Your task to perform on an android device: open app "Indeed Job Search" (install if not already installed) and go to login screen Image 0: 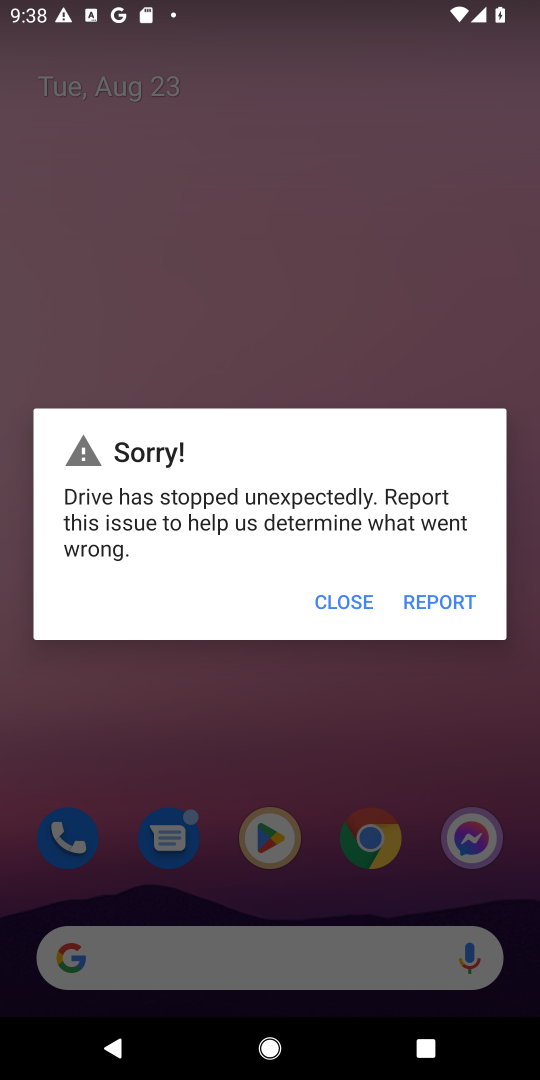
Step 0: click (350, 614)
Your task to perform on an android device: open app "Indeed Job Search" (install if not already installed) and go to login screen Image 1: 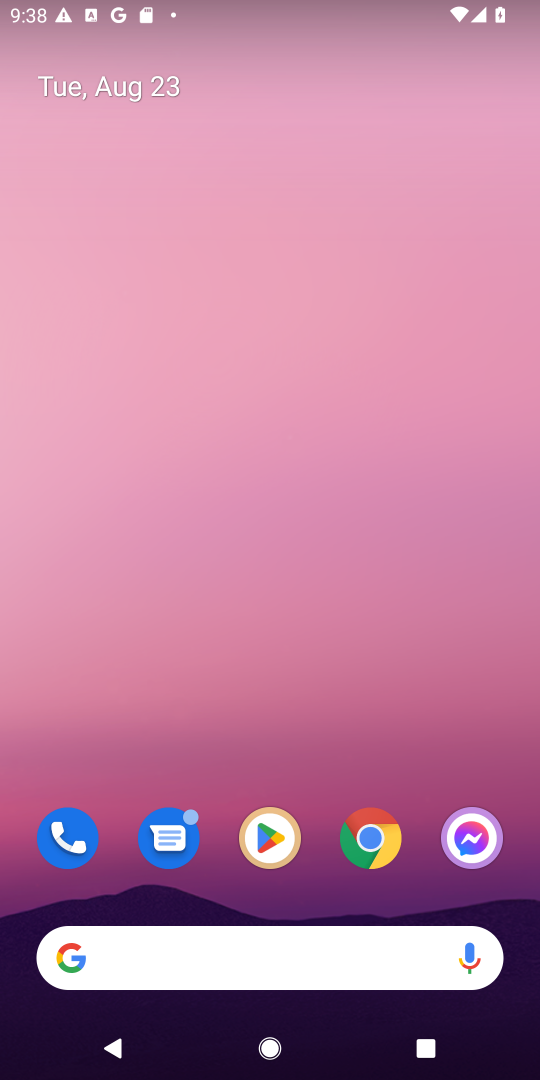
Step 1: click (289, 827)
Your task to perform on an android device: open app "Indeed Job Search" (install if not already installed) and go to login screen Image 2: 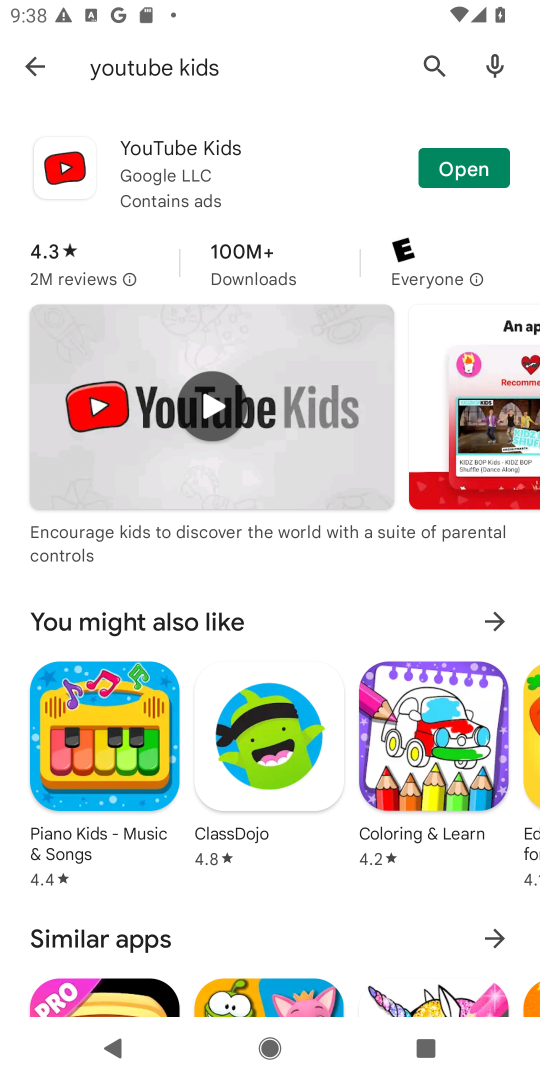
Step 2: click (436, 56)
Your task to perform on an android device: open app "Indeed Job Search" (install if not already installed) and go to login screen Image 3: 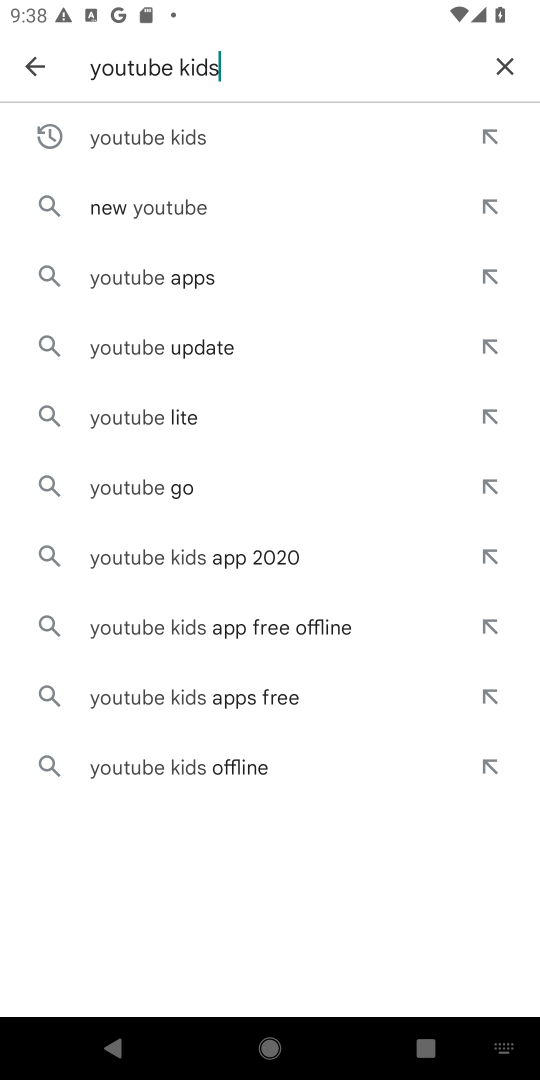
Step 3: click (498, 63)
Your task to perform on an android device: open app "Indeed Job Search" (install if not already installed) and go to login screen Image 4: 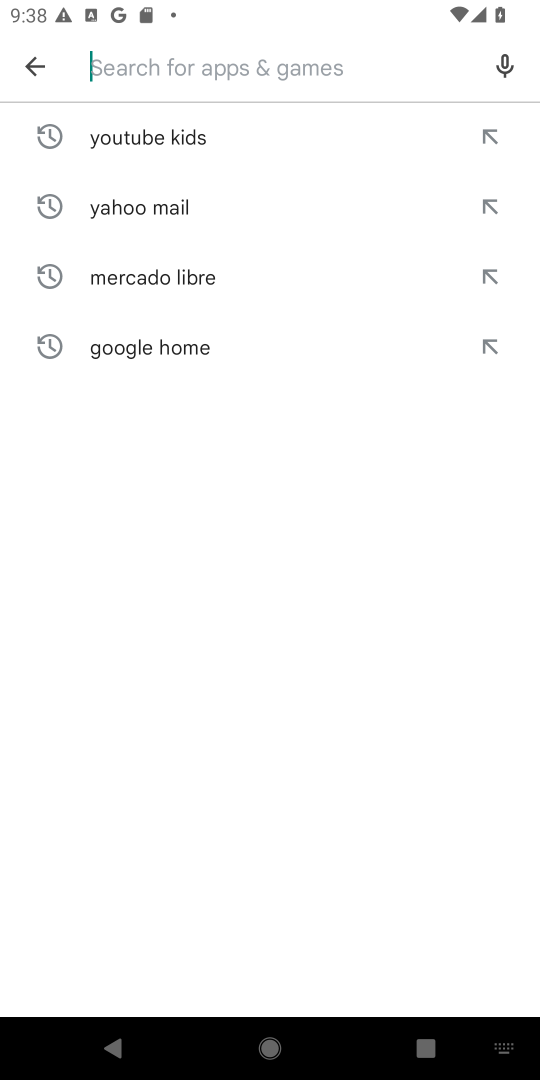
Step 4: type "Indeed Job Search"
Your task to perform on an android device: open app "Indeed Job Search" (install if not already installed) and go to login screen Image 5: 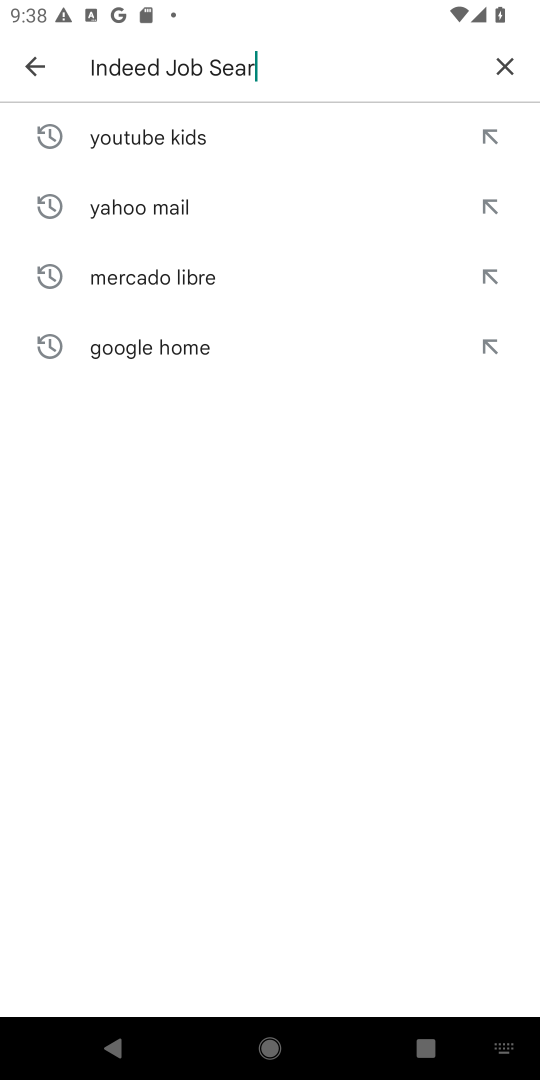
Step 5: type ""
Your task to perform on an android device: open app "Indeed Job Search" (install if not already installed) and go to login screen Image 6: 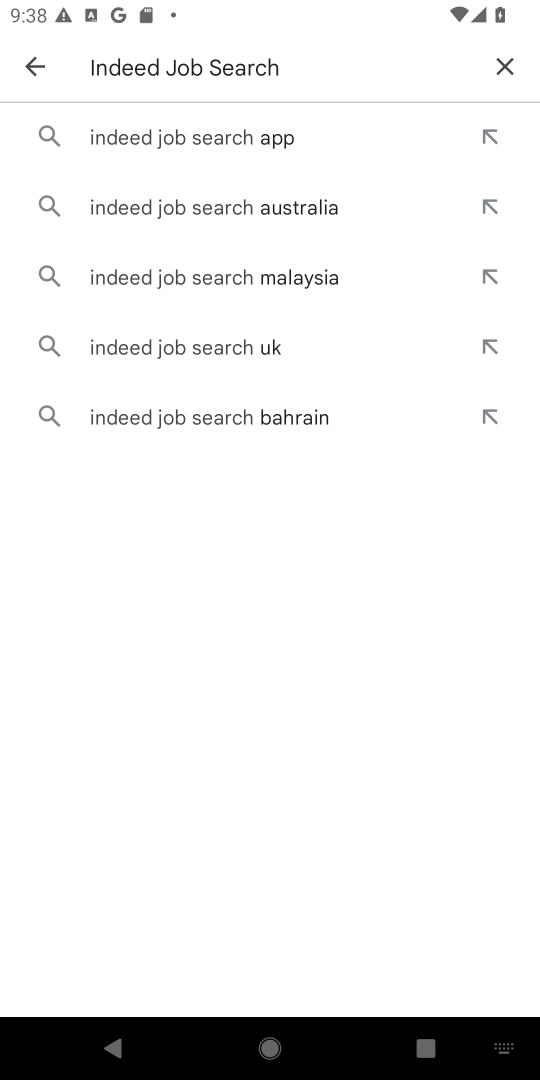
Step 6: click (203, 128)
Your task to perform on an android device: open app "Indeed Job Search" (install if not already installed) and go to login screen Image 7: 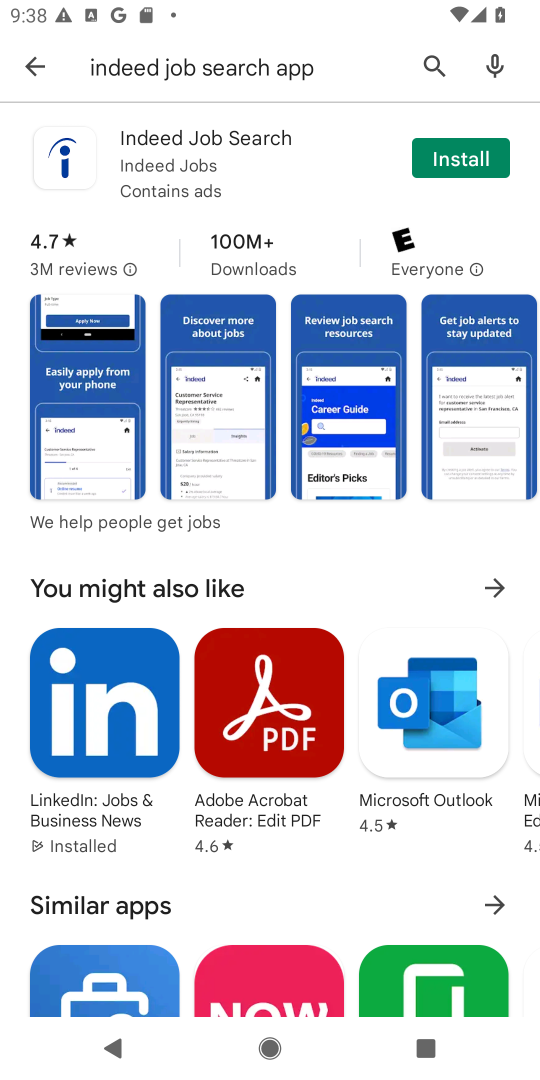
Step 7: click (438, 162)
Your task to perform on an android device: open app "Indeed Job Search" (install if not already installed) and go to login screen Image 8: 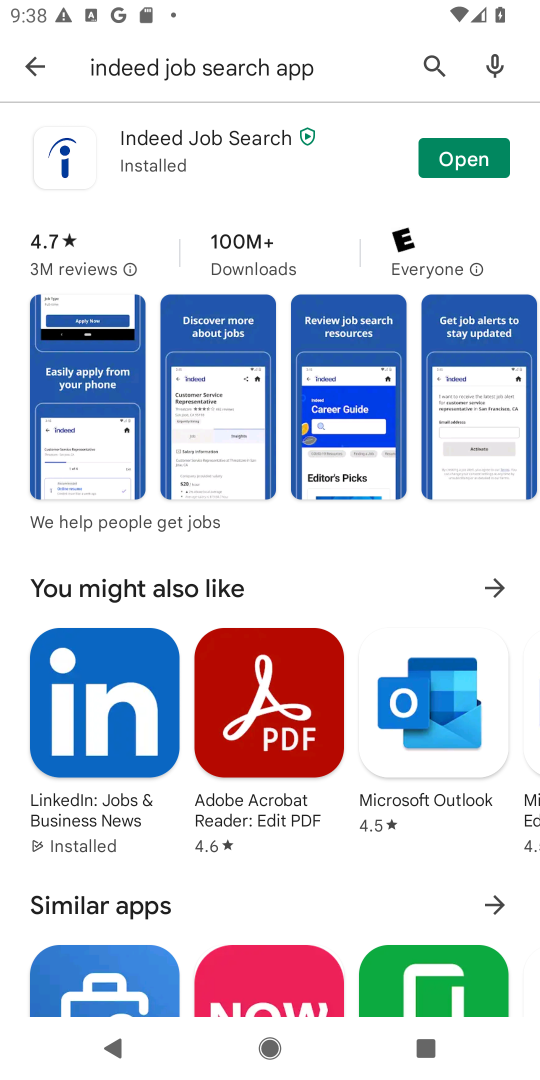
Step 8: click (493, 153)
Your task to perform on an android device: open app "Indeed Job Search" (install if not already installed) and go to login screen Image 9: 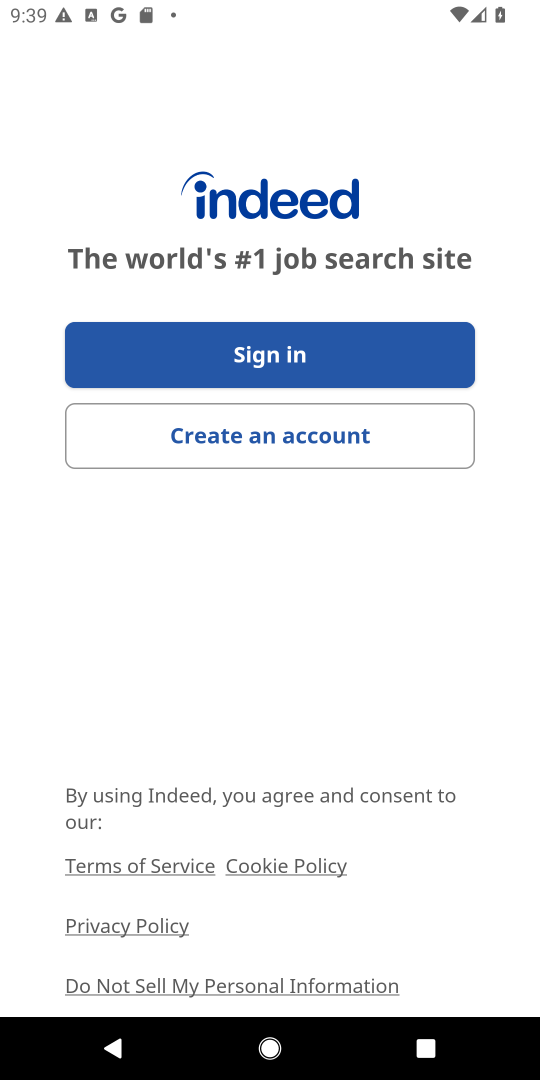
Step 9: task complete